Your task to perform on an android device: Go to Google maps Image 0: 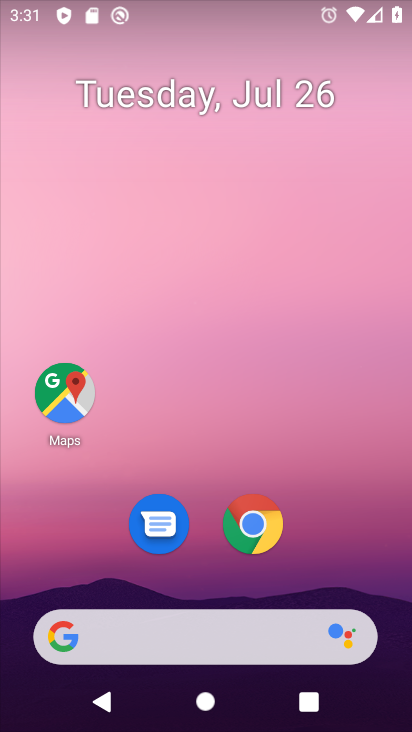
Step 0: click (73, 388)
Your task to perform on an android device: Go to Google maps Image 1: 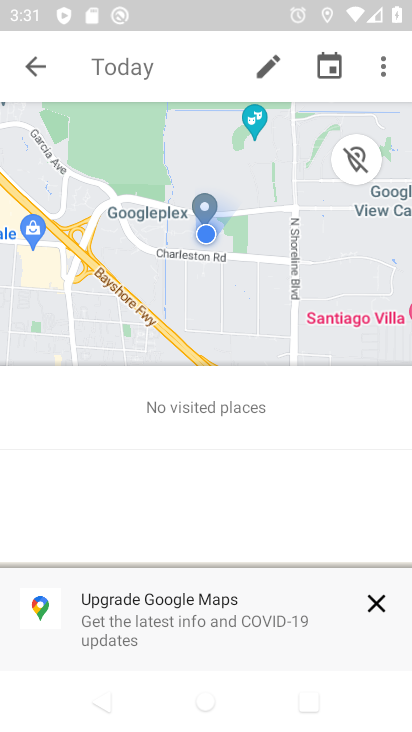
Step 1: click (37, 73)
Your task to perform on an android device: Go to Google maps Image 2: 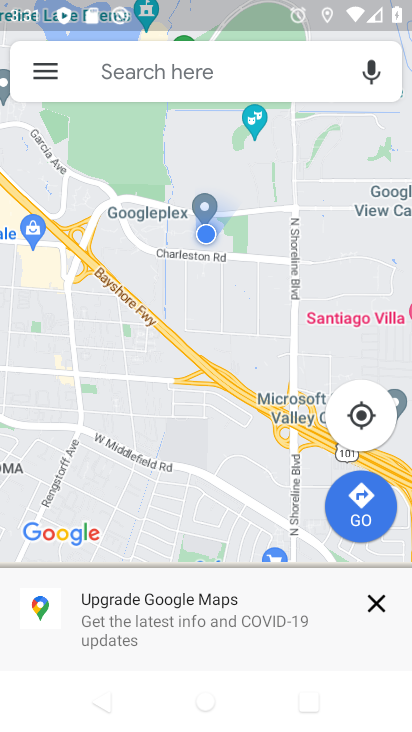
Step 2: task complete